Your task to perform on an android device: turn off javascript in the chrome app Image 0: 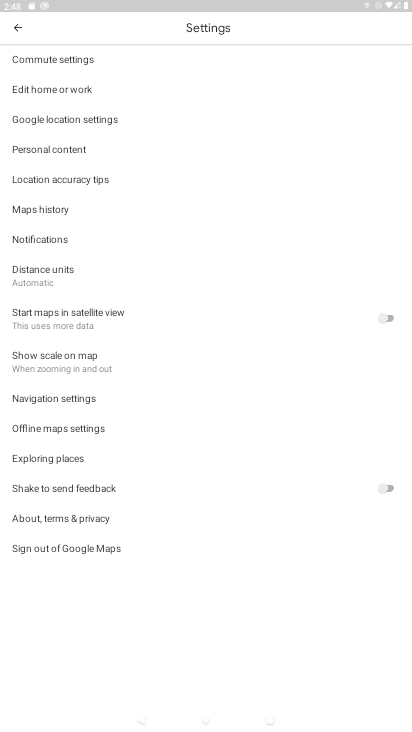
Step 0: press home button
Your task to perform on an android device: turn off javascript in the chrome app Image 1: 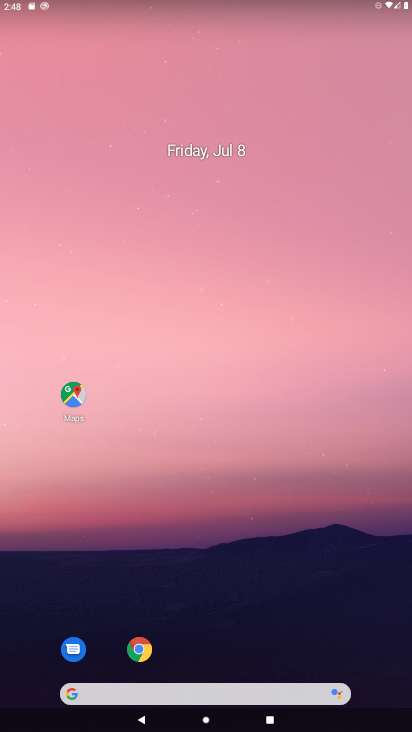
Step 1: click (140, 653)
Your task to perform on an android device: turn off javascript in the chrome app Image 2: 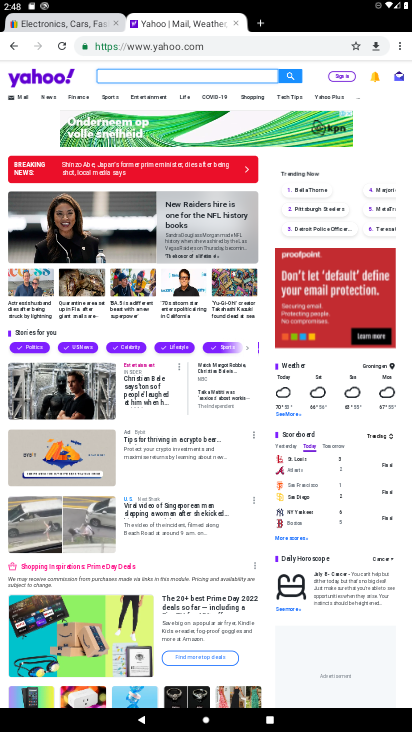
Step 2: click (401, 44)
Your task to perform on an android device: turn off javascript in the chrome app Image 3: 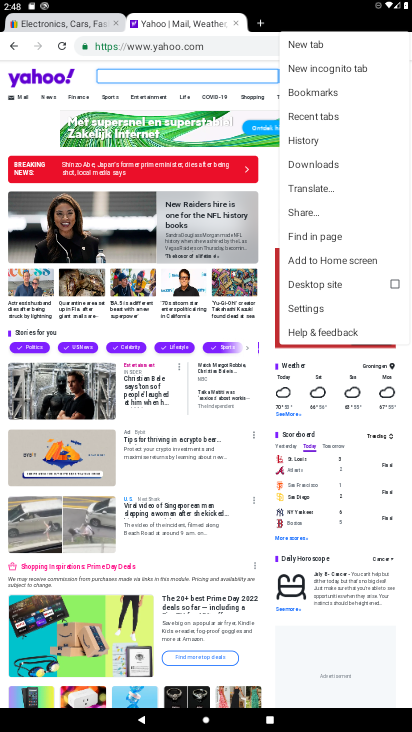
Step 3: click (312, 311)
Your task to perform on an android device: turn off javascript in the chrome app Image 4: 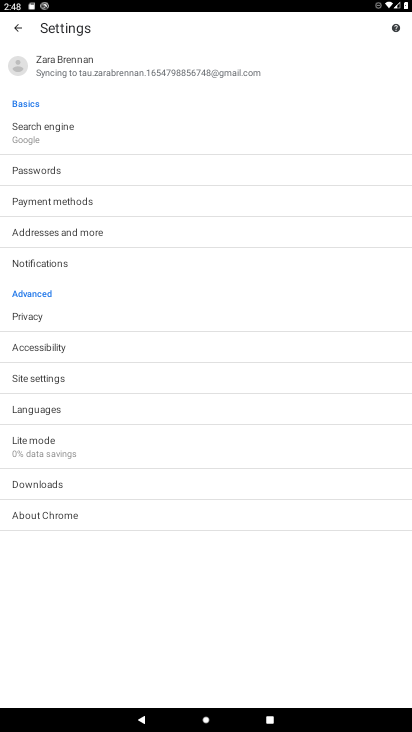
Step 4: click (36, 380)
Your task to perform on an android device: turn off javascript in the chrome app Image 5: 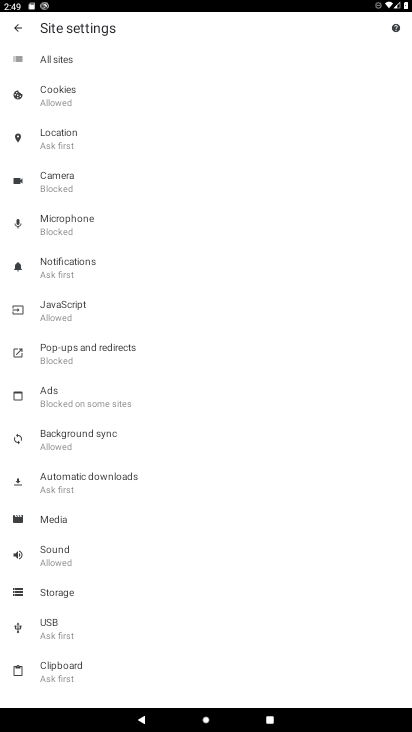
Step 5: click (45, 305)
Your task to perform on an android device: turn off javascript in the chrome app Image 6: 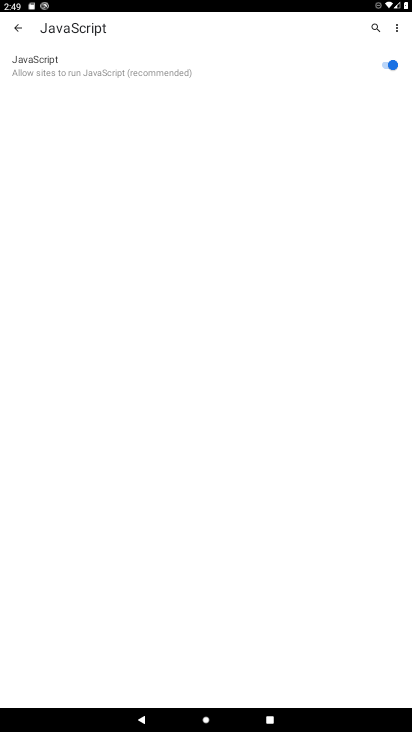
Step 6: click (383, 62)
Your task to perform on an android device: turn off javascript in the chrome app Image 7: 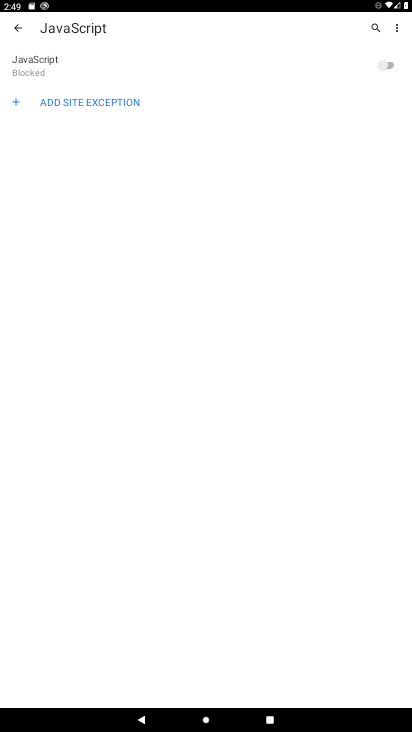
Step 7: task complete